Your task to perform on an android device: turn off smart reply in the gmail app Image 0: 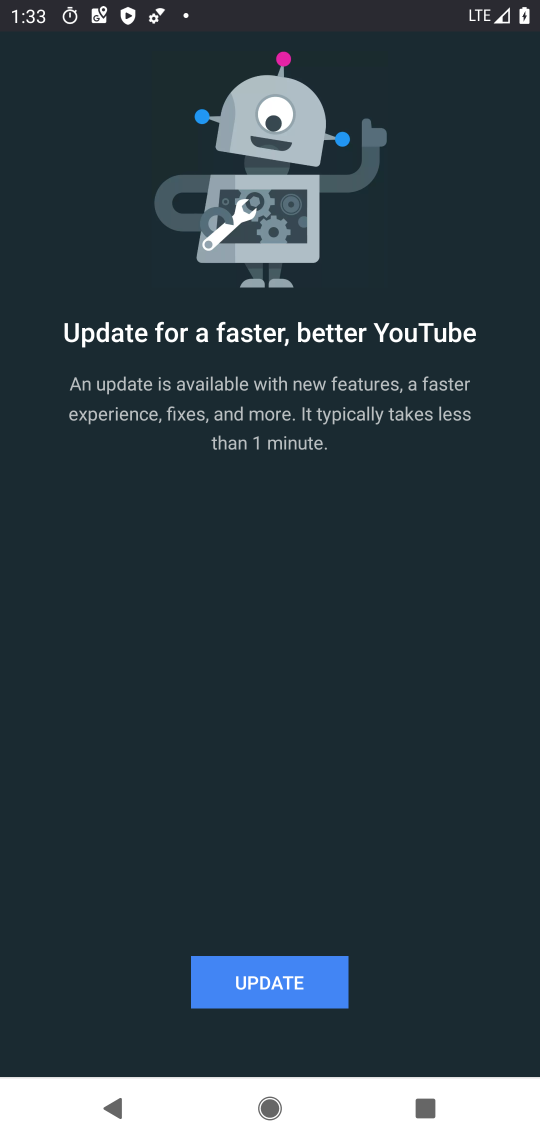
Step 0: press home button
Your task to perform on an android device: turn off smart reply in the gmail app Image 1: 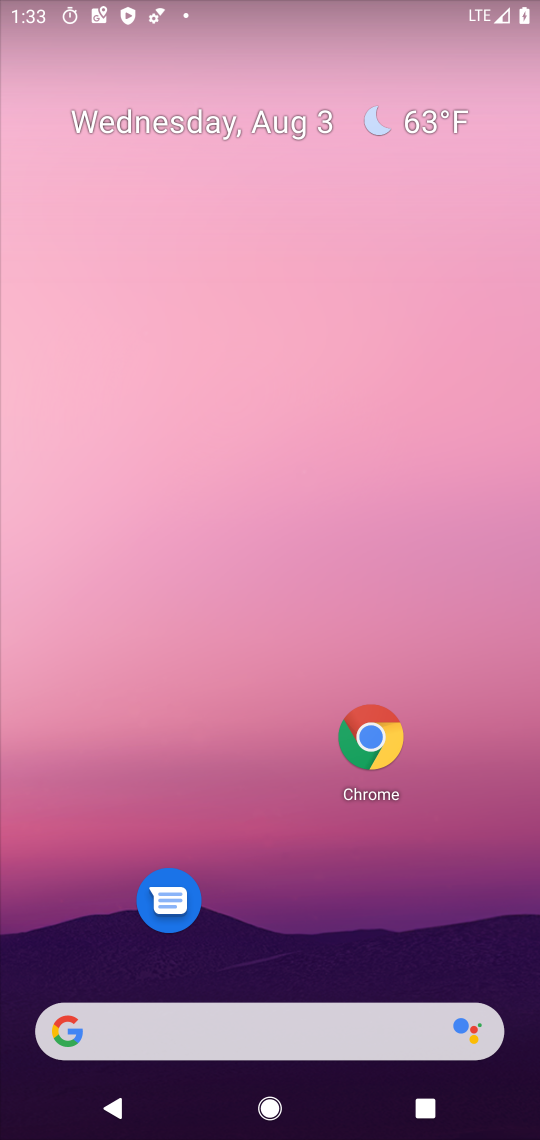
Step 1: drag from (265, 808) to (213, 72)
Your task to perform on an android device: turn off smart reply in the gmail app Image 2: 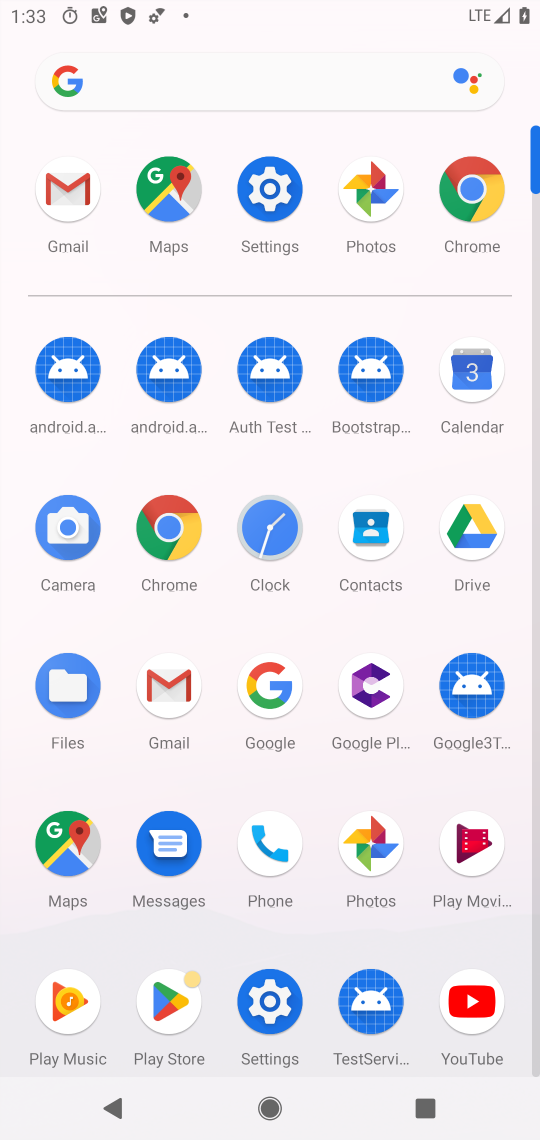
Step 2: click (180, 659)
Your task to perform on an android device: turn off smart reply in the gmail app Image 3: 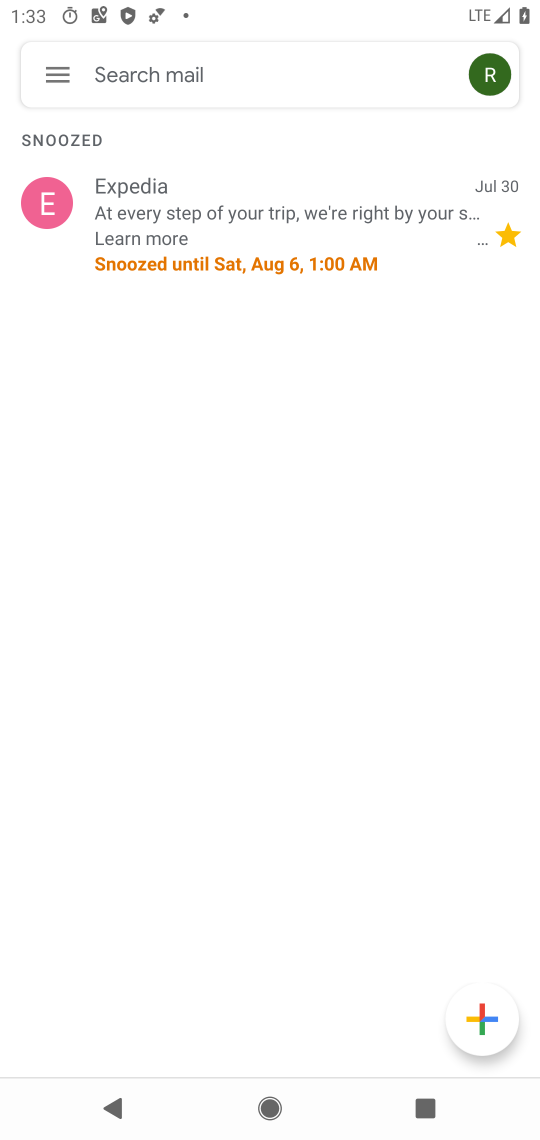
Step 3: click (60, 68)
Your task to perform on an android device: turn off smart reply in the gmail app Image 4: 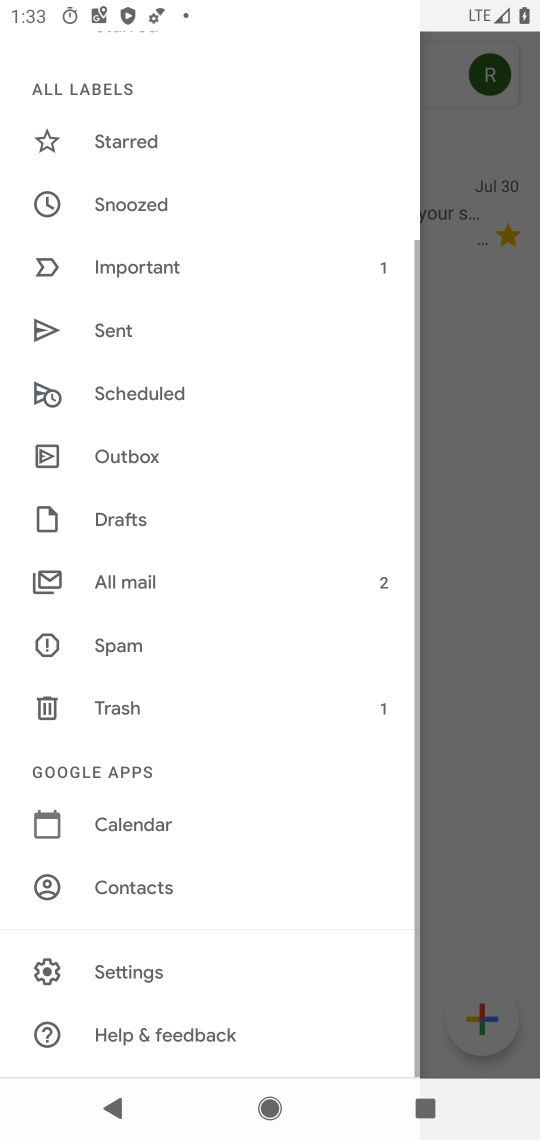
Step 4: click (150, 973)
Your task to perform on an android device: turn off smart reply in the gmail app Image 5: 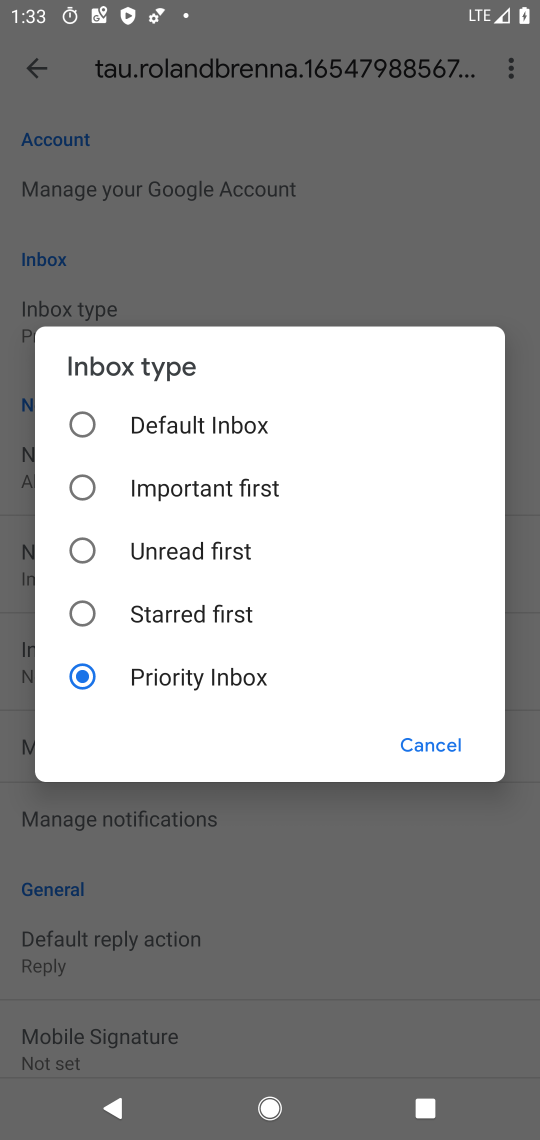
Step 5: click (309, 857)
Your task to perform on an android device: turn off smart reply in the gmail app Image 6: 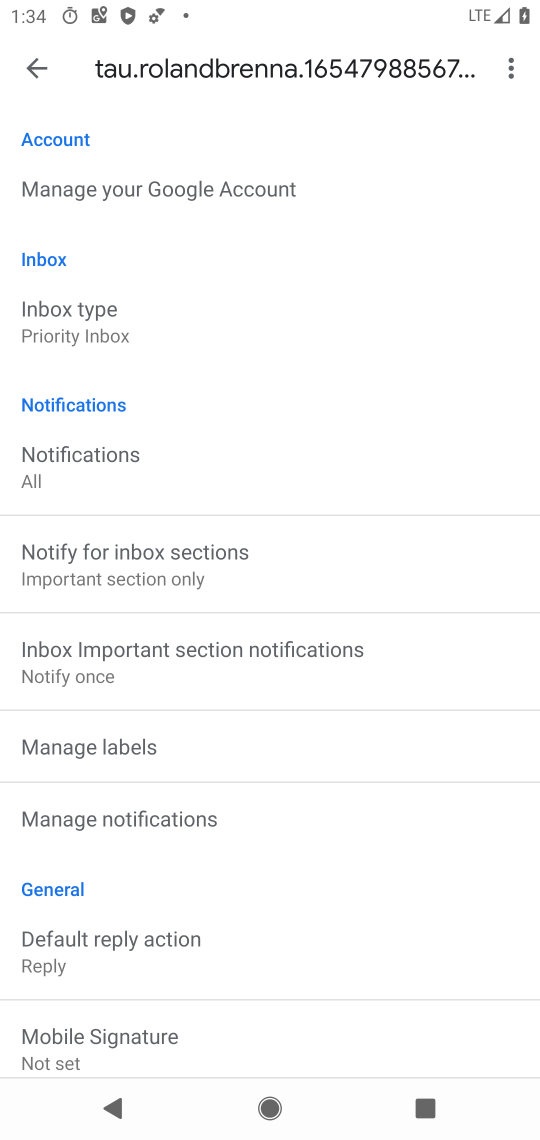
Step 6: task complete